Your task to perform on an android device: open a bookmark in the chrome app Image 0: 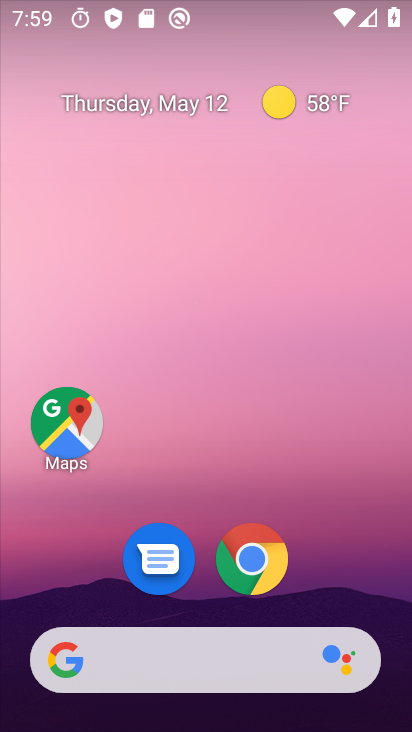
Step 0: click (251, 558)
Your task to perform on an android device: open a bookmark in the chrome app Image 1: 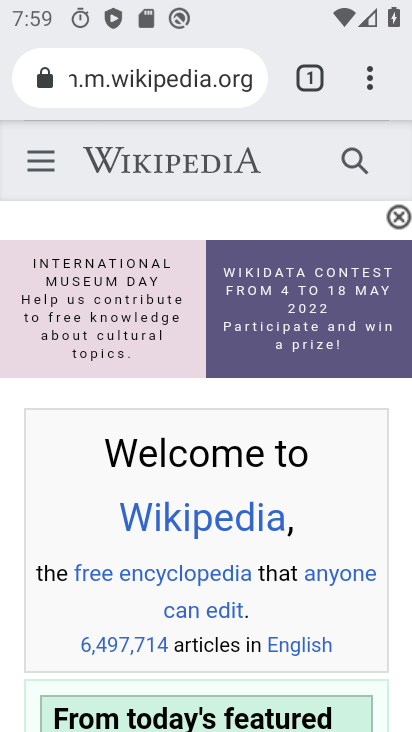
Step 1: click (367, 77)
Your task to perform on an android device: open a bookmark in the chrome app Image 2: 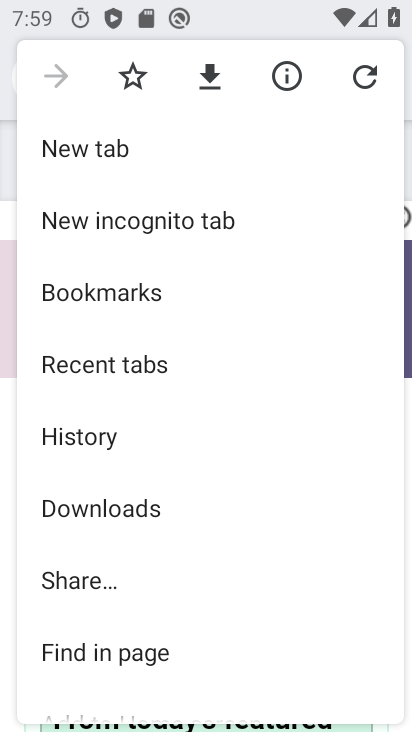
Step 2: click (139, 291)
Your task to perform on an android device: open a bookmark in the chrome app Image 3: 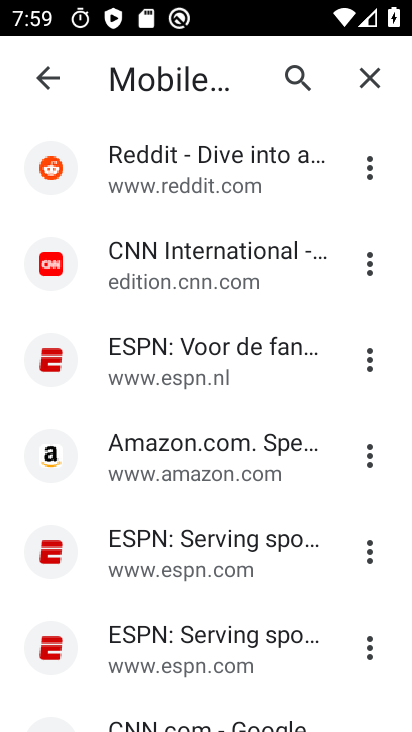
Step 3: task complete